Your task to perform on an android device: see sites visited before in the chrome app Image 0: 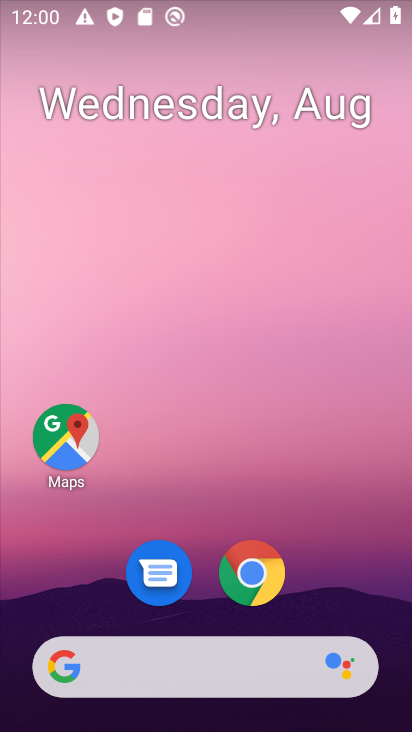
Step 0: drag from (204, 616) to (390, 8)
Your task to perform on an android device: see sites visited before in the chrome app Image 1: 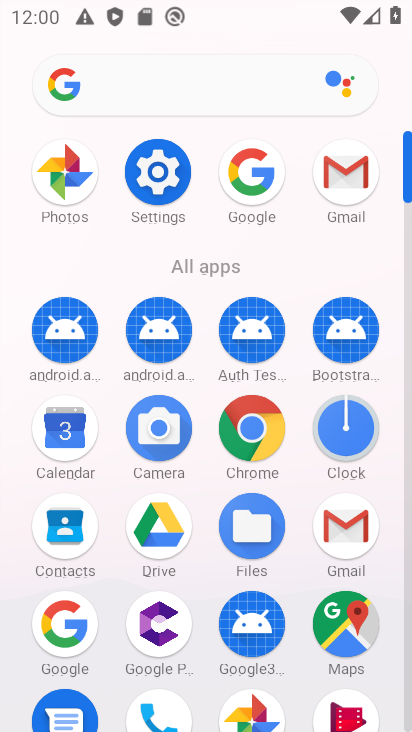
Step 1: click (240, 446)
Your task to perform on an android device: see sites visited before in the chrome app Image 2: 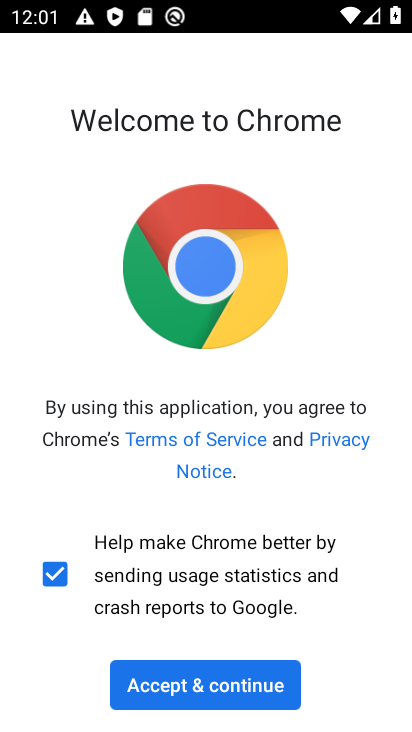
Step 2: click (187, 687)
Your task to perform on an android device: see sites visited before in the chrome app Image 3: 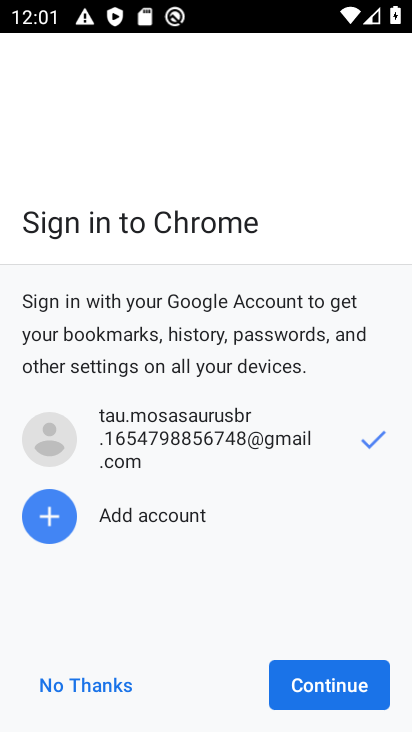
Step 3: click (339, 681)
Your task to perform on an android device: see sites visited before in the chrome app Image 4: 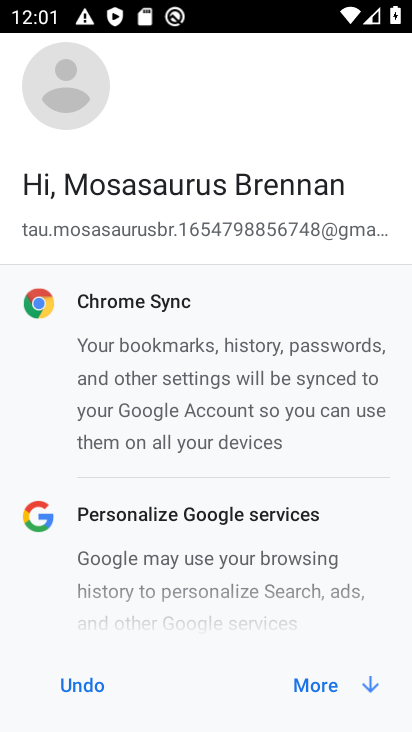
Step 4: click (339, 681)
Your task to perform on an android device: see sites visited before in the chrome app Image 5: 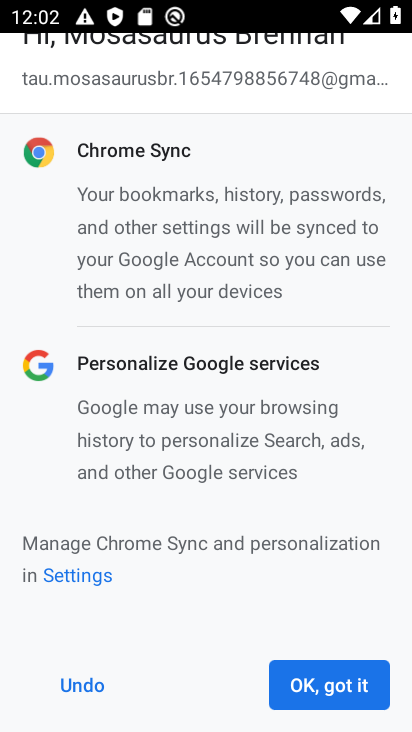
Step 5: click (323, 688)
Your task to perform on an android device: see sites visited before in the chrome app Image 6: 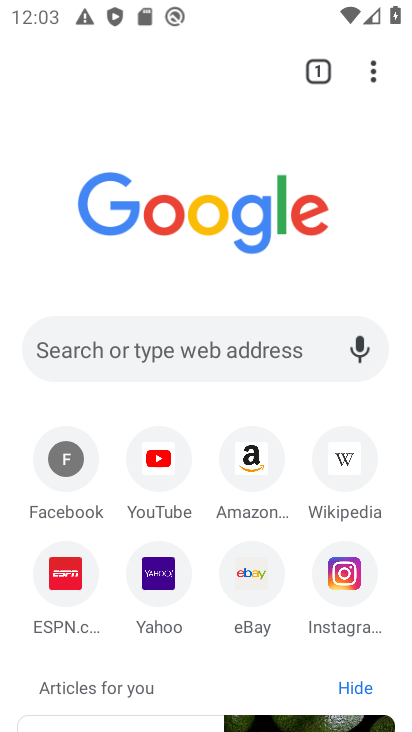
Step 6: click (363, 76)
Your task to perform on an android device: see sites visited before in the chrome app Image 7: 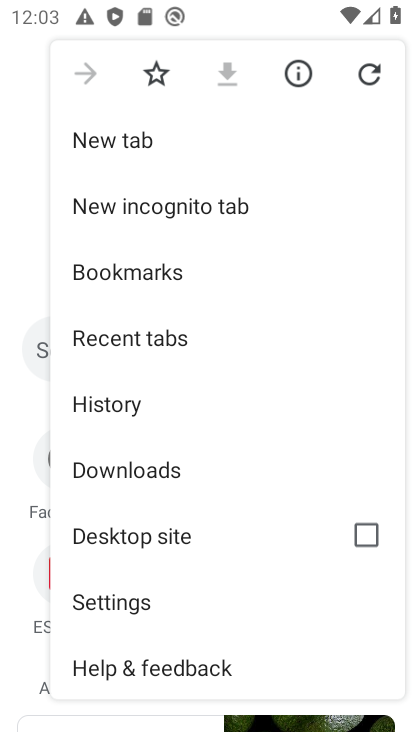
Step 7: click (118, 409)
Your task to perform on an android device: see sites visited before in the chrome app Image 8: 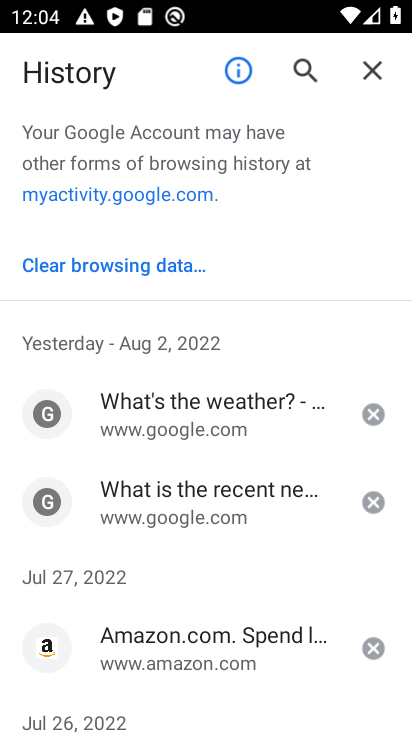
Step 8: task complete